Your task to perform on an android device: What is the recent news? Image 0: 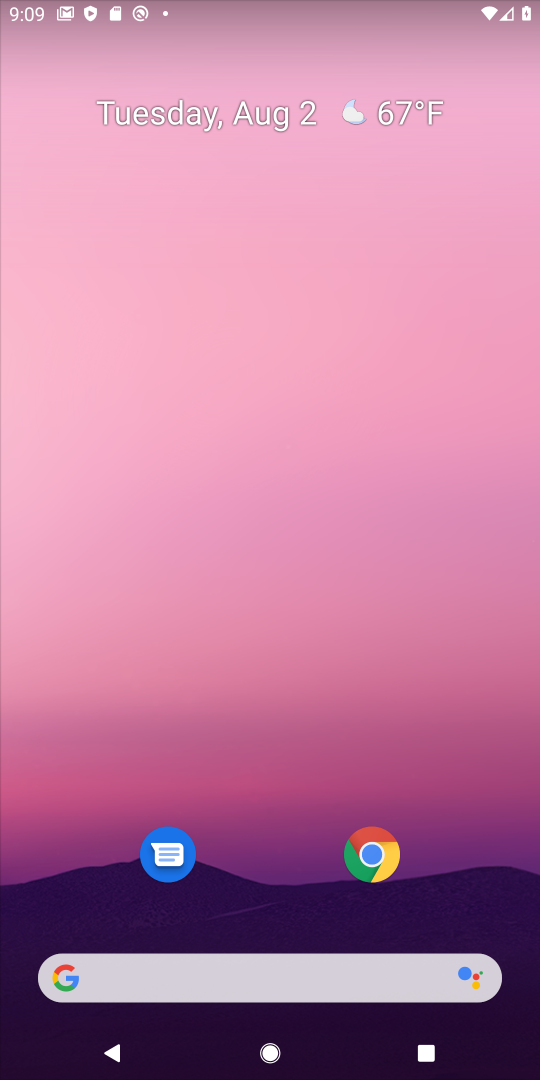
Step 0: click (254, 975)
Your task to perform on an android device: What is the recent news? Image 1: 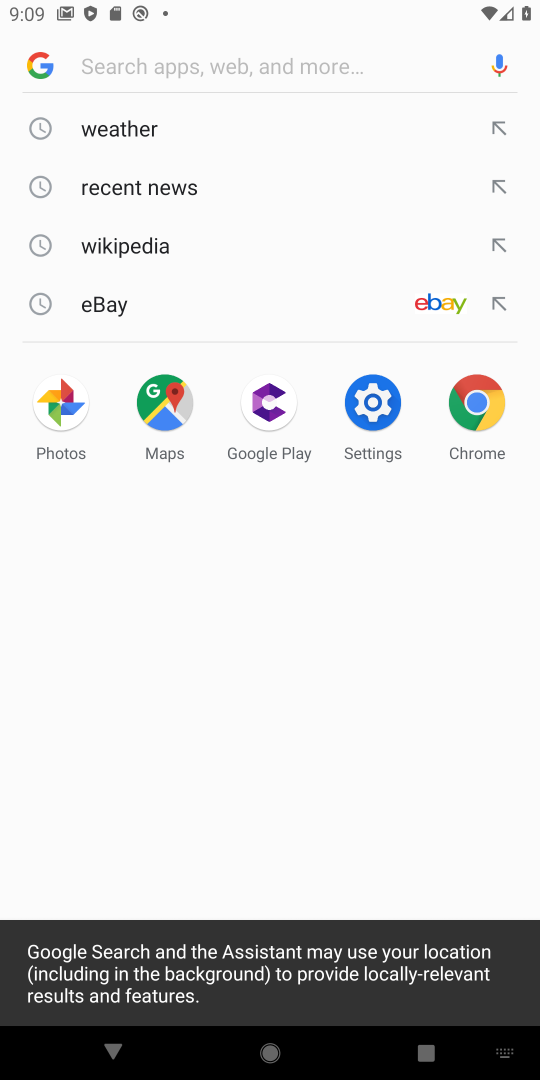
Step 1: click (159, 181)
Your task to perform on an android device: What is the recent news? Image 2: 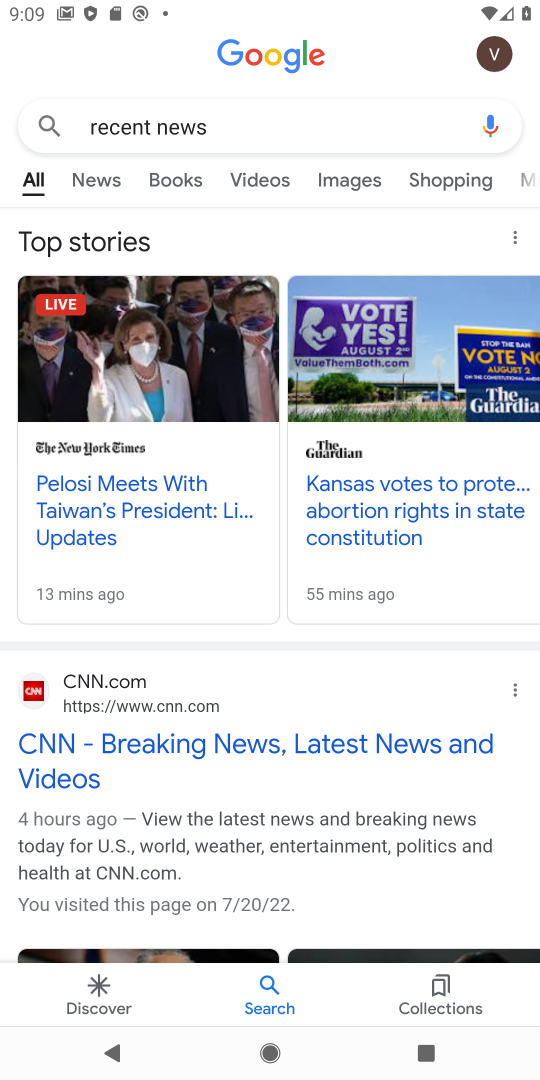
Step 2: click (105, 164)
Your task to perform on an android device: What is the recent news? Image 3: 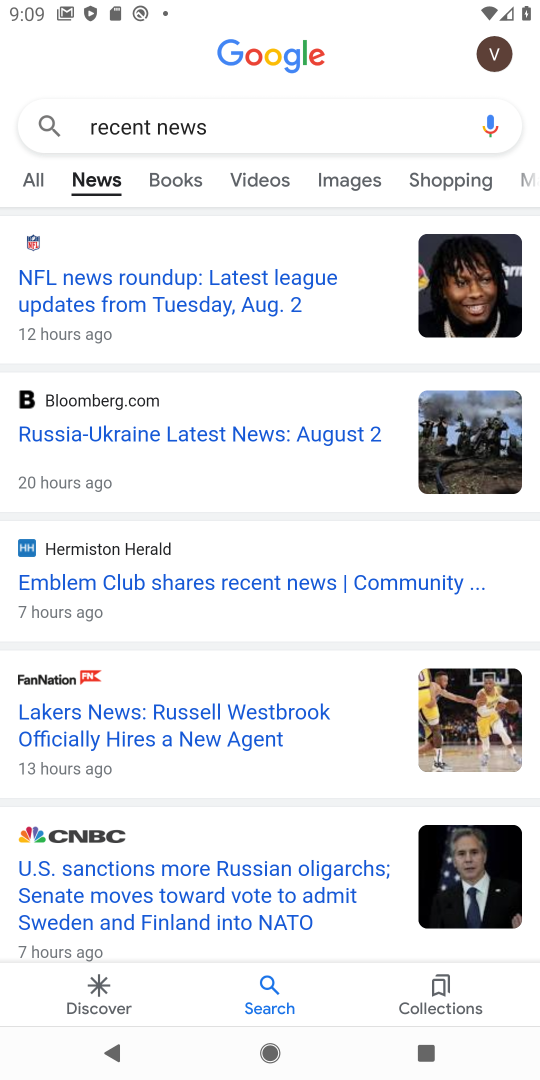
Step 3: task complete